Your task to perform on an android device: change notifications settings Image 0: 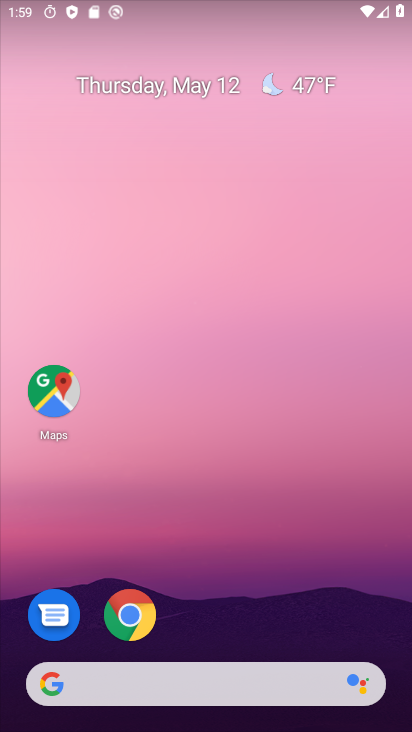
Step 0: drag from (216, 587) to (249, 99)
Your task to perform on an android device: change notifications settings Image 1: 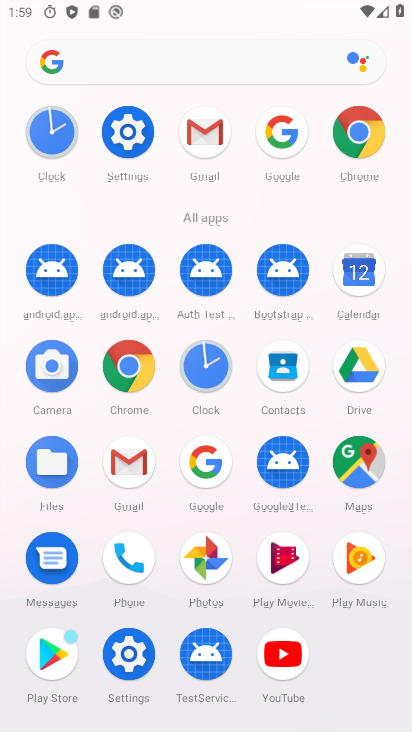
Step 1: click (127, 127)
Your task to perform on an android device: change notifications settings Image 2: 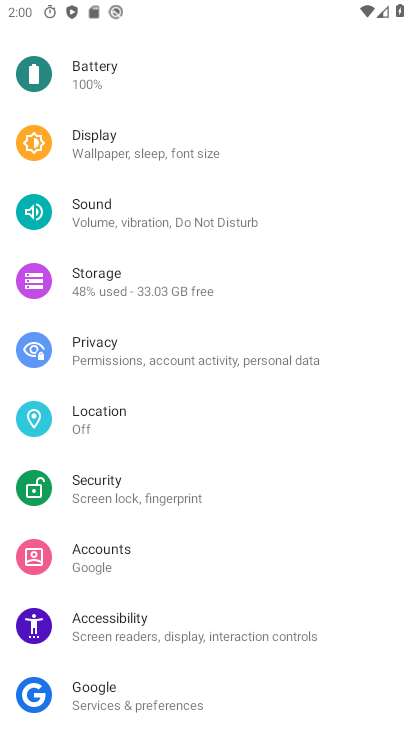
Step 2: drag from (162, 178) to (189, 563)
Your task to perform on an android device: change notifications settings Image 3: 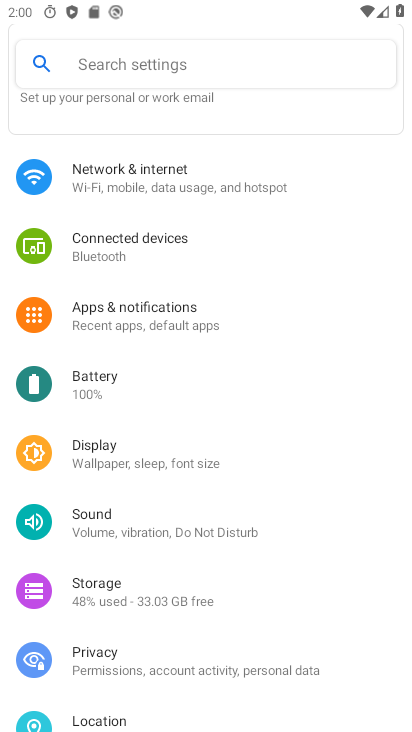
Step 3: click (119, 296)
Your task to perform on an android device: change notifications settings Image 4: 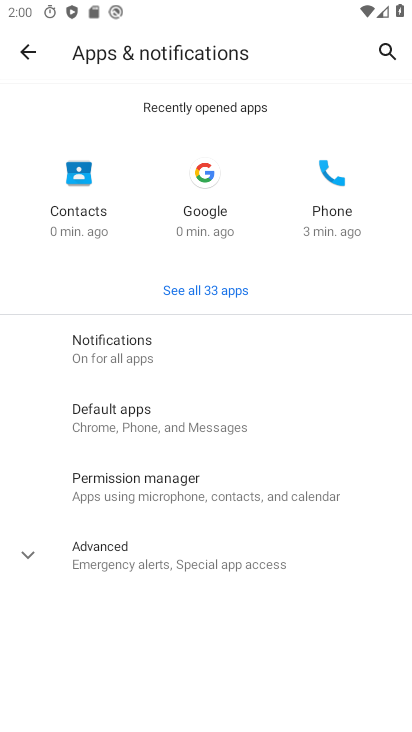
Step 4: click (156, 349)
Your task to perform on an android device: change notifications settings Image 5: 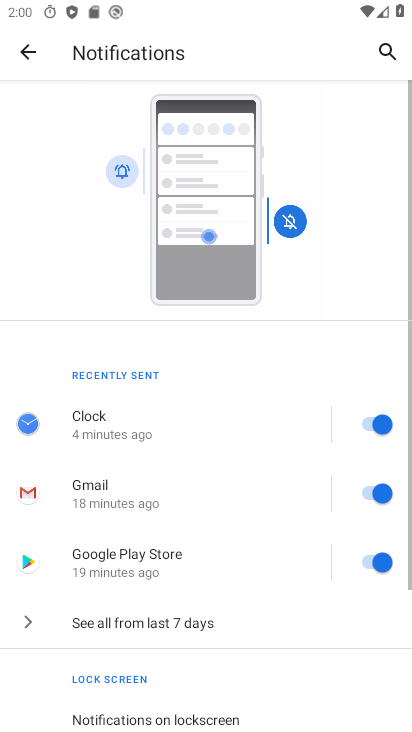
Step 5: drag from (252, 534) to (262, 49)
Your task to perform on an android device: change notifications settings Image 6: 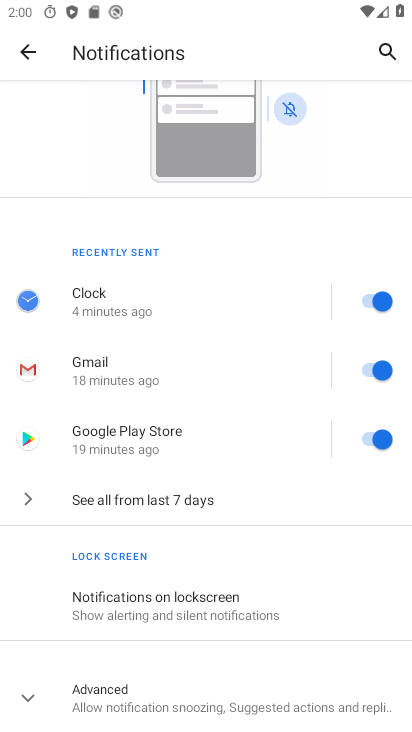
Step 6: click (125, 689)
Your task to perform on an android device: change notifications settings Image 7: 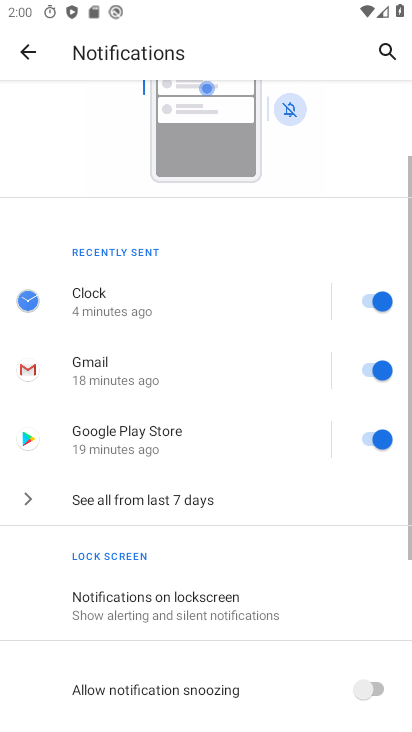
Step 7: drag from (203, 643) to (238, 279)
Your task to perform on an android device: change notifications settings Image 8: 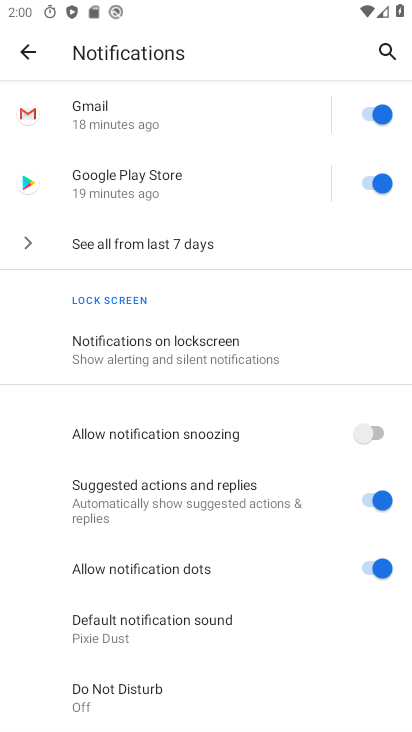
Step 8: click (364, 440)
Your task to perform on an android device: change notifications settings Image 9: 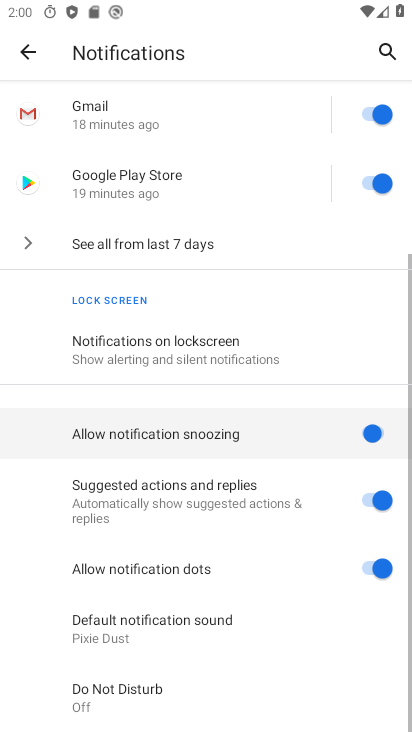
Step 9: click (380, 503)
Your task to perform on an android device: change notifications settings Image 10: 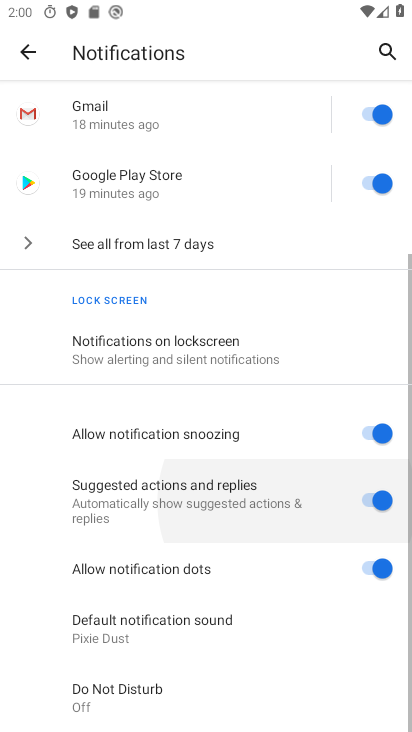
Step 10: click (390, 566)
Your task to perform on an android device: change notifications settings Image 11: 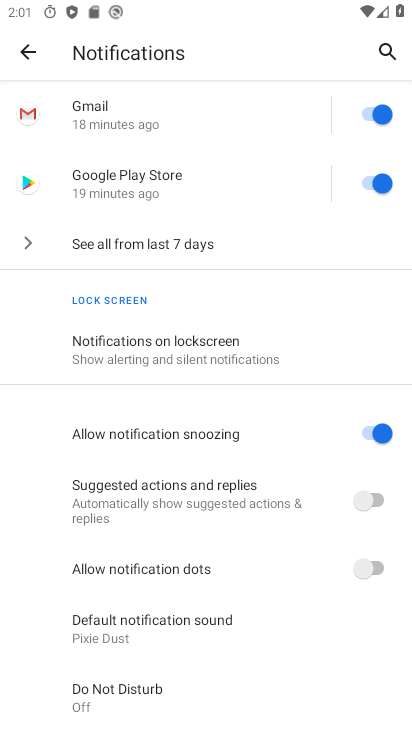
Step 11: task complete